Your task to perform on an android device: change the clock display to analog Image 0: 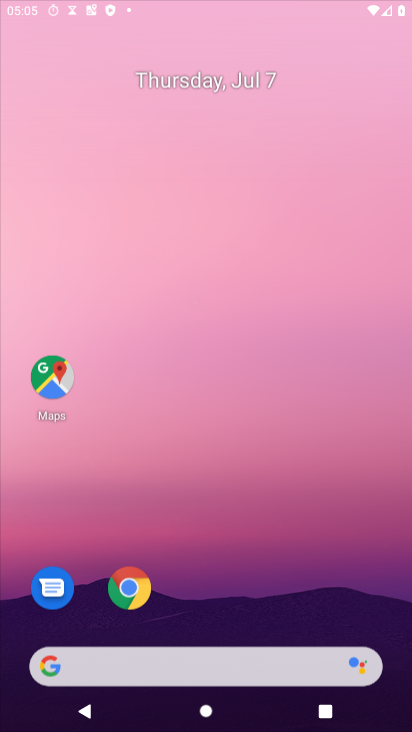
Step 0: press home button
Your task to perform on an android device: change the clock display to analog Image 1: 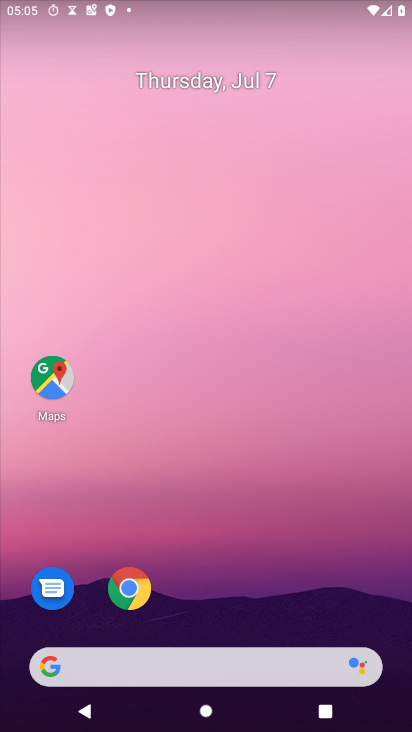
Step 1: press home button
Your task to perform on an android device: change the clock display to analog Image 2: 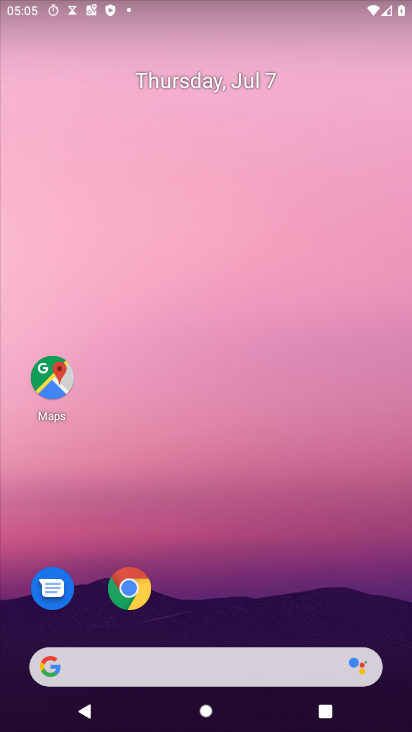
Step 2: drag from (244, 636) to (351, 54)
Your task to perform on an android device: change the clock display to analog Image 3: 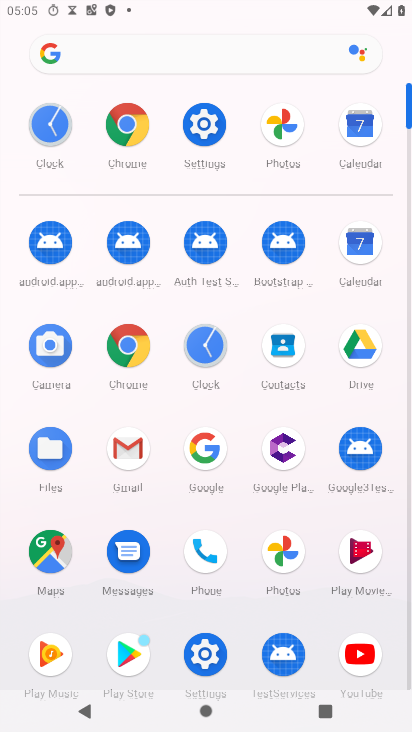
Step 3: click (207, 343)
Your task to perform on an android device: change the clock display to analog Image 4: 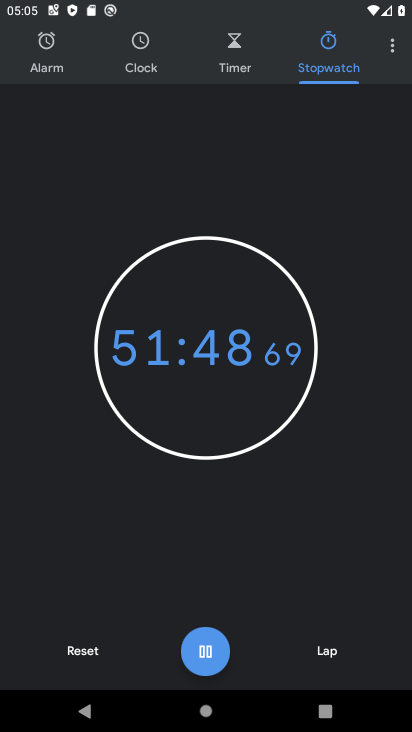
Step 4: click (389, 44)
Your task to perform on an android device: change the clock display to analog Image 5: 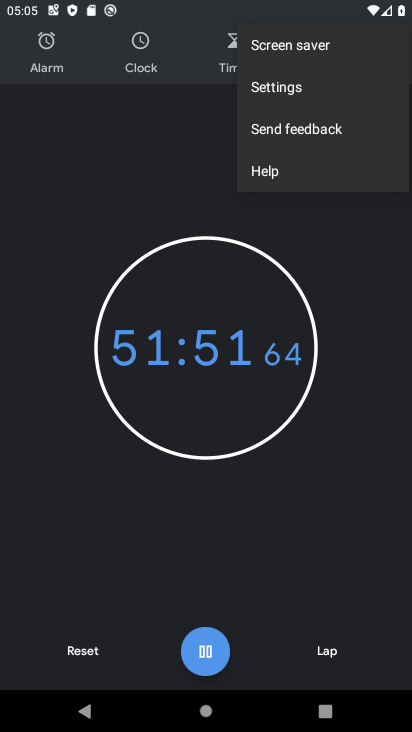
Step 5: click (283, 90)
Your task to perform on an android device: change the clock display to analog Image 6: 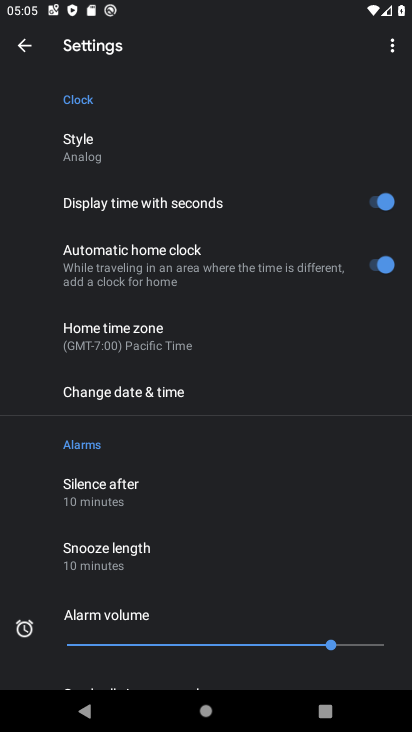
Step 6: click (91, 161)
Your task to perform on an android device: change the clock display to analog Image 7: 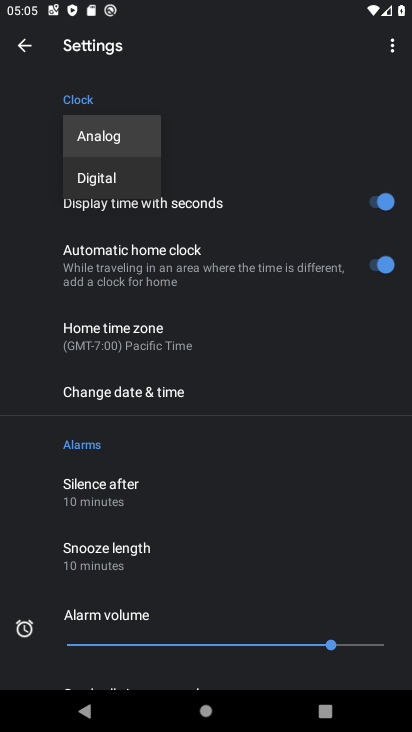
Step 7: task complete